Your task to perform on an android device: Open the web browser Image 0: 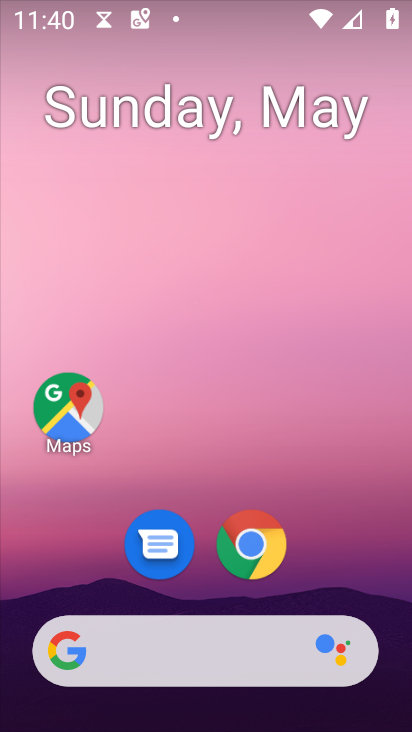
Step 0: click (253, 556)
Your task to perform on an android device: Open the web browser Image 1: 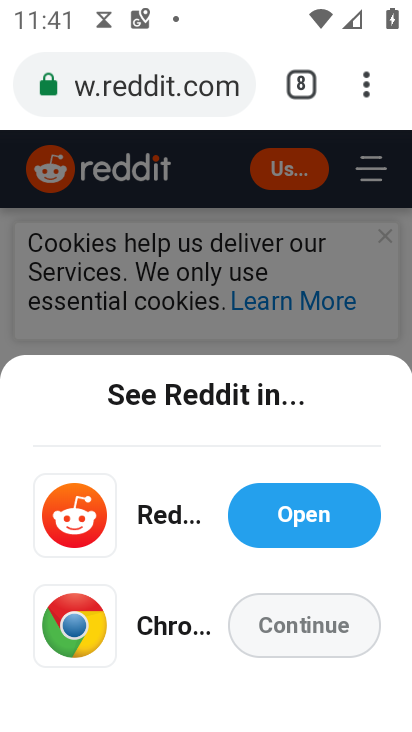
Step 1: task complete